Your task to perform on an android device: Open Reddit.com Image 0: 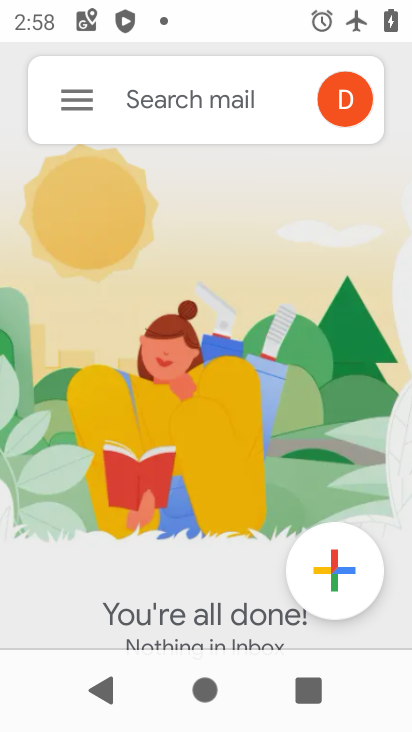
Step 0: press home button
Your task to perform on an android device: Open Reddit.com Image 1: 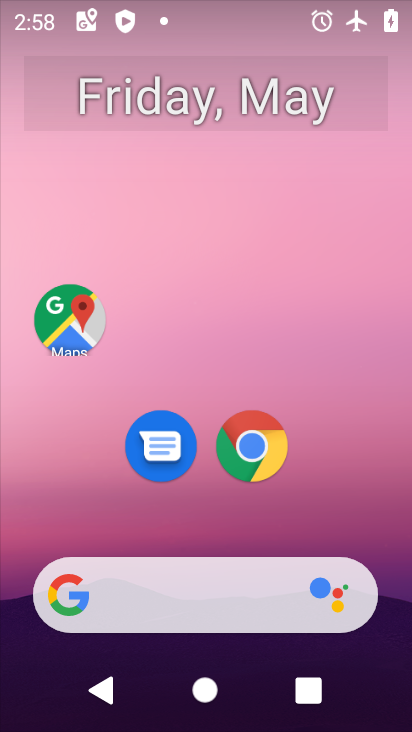
Step 1: click (270, 457)
Your task to perform on an android device: Open Reddit.com Image 2: 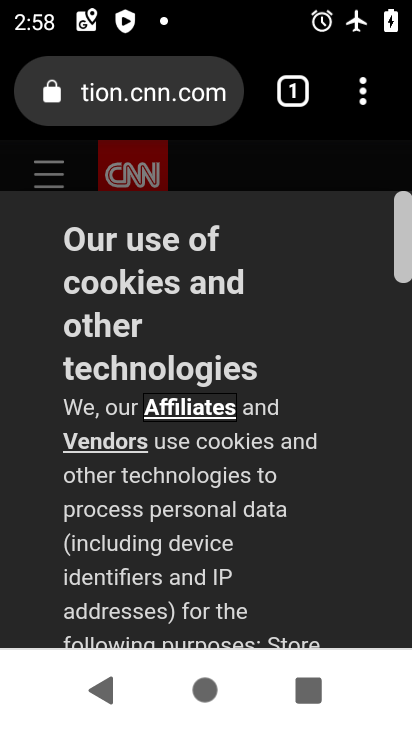
Step 2: click (193, 95)
Your task to perform on an android device: Open Reddit.com Image 3: 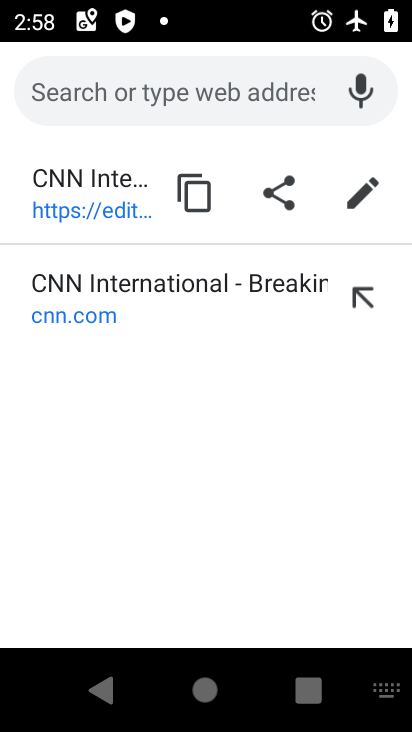
Step 3: click (193, 95)
Your task to perform on an android device: Open Reddit.com Image 4: 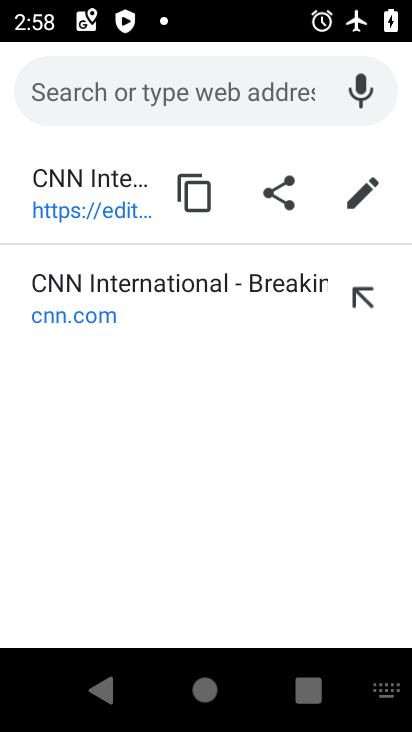
Step 4: type "Reddit.com"
Your task to perform on an android device: Open Reddit.com Image 5: 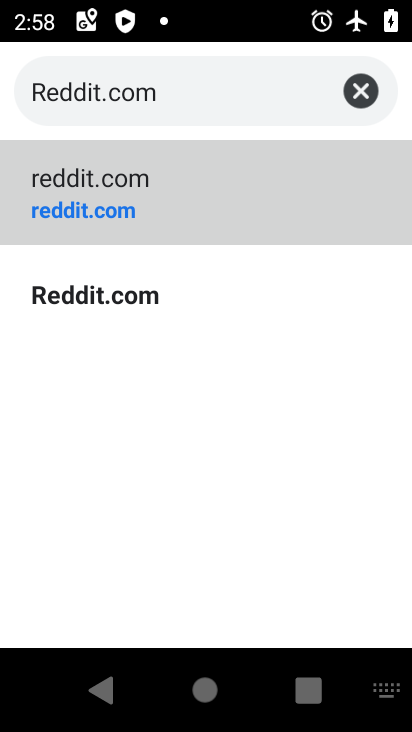
Step 5: click (109, 206)
Your task to perform on an android device: Open Reddit.com Image 6: 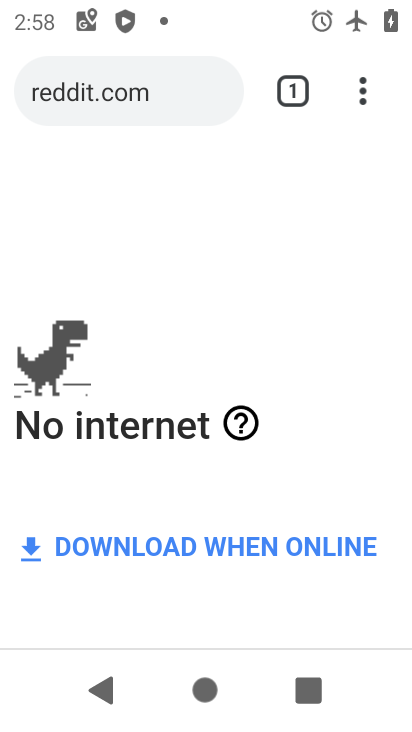
Step 6: task complete